Your task to perform on an android device: Go to Android settings Image 0: 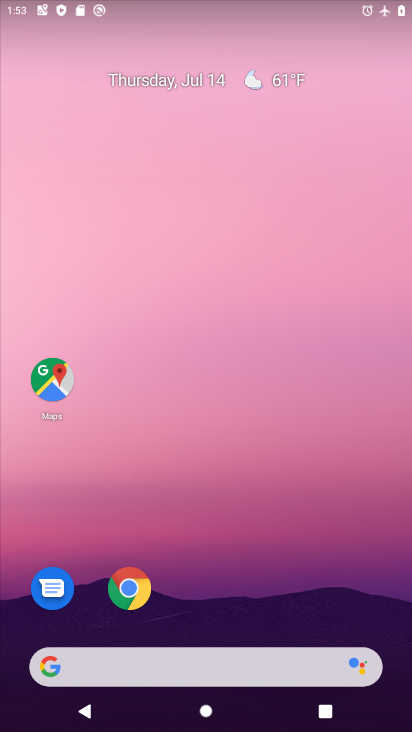
Step 0: drag from (250, 590) to (252, 54)
Your task to perform on an android device: Go to Android settings Image 1: 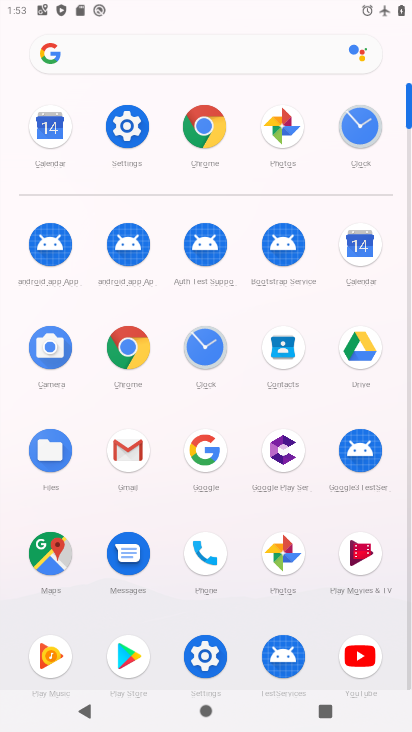
Step 1: click (110, 119)
Your task to perform on an android device: Go to Android settings Image 2: 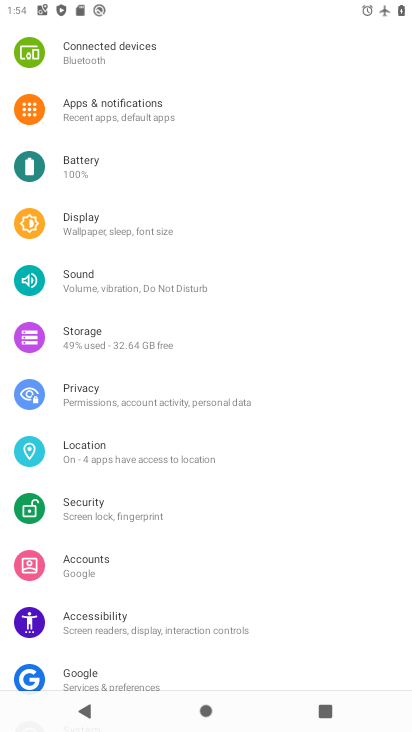
Step 2: task complete